Your task to perform on an android device: Add "razer kraken" to the cart on costco Image 0: 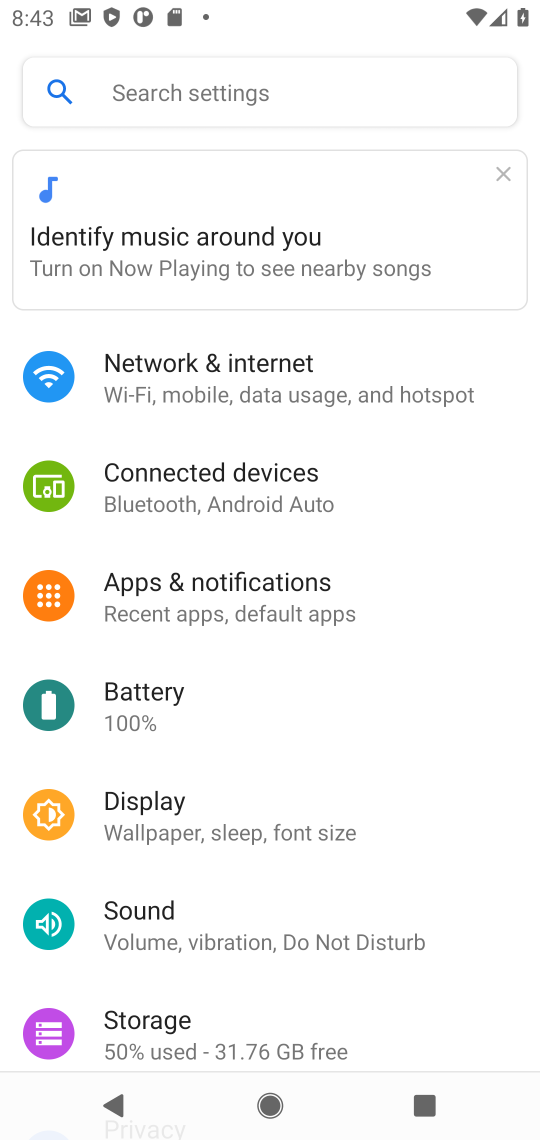
Step 0: press back button
Your task to perform on an android device: Add "razer kraken" to the cart on costco Image 1: 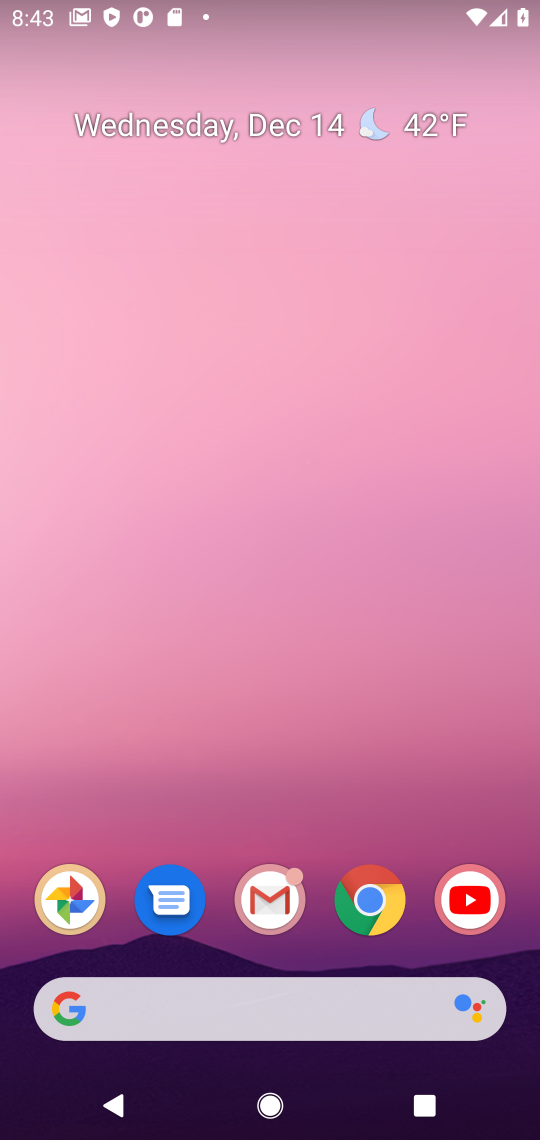
Step 1: click (389, 911)
Your task to perform on an android device: Add "razer kraken" to the cart on costco Image 2: 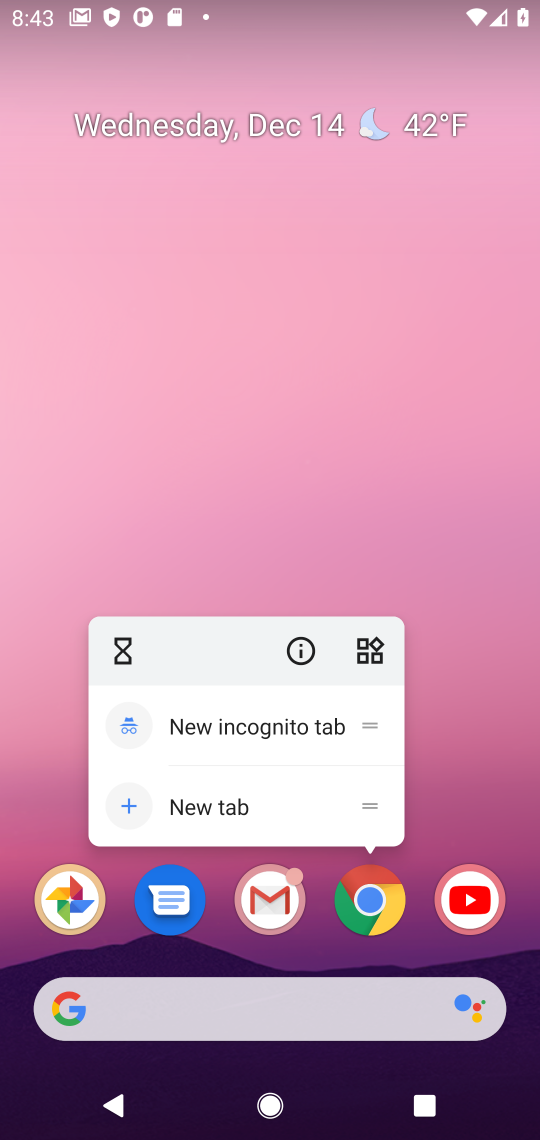
Step 2: click (388, 912)
Your task to perform on an android device: Add "razer kraken" to the cart on costco Image 3: 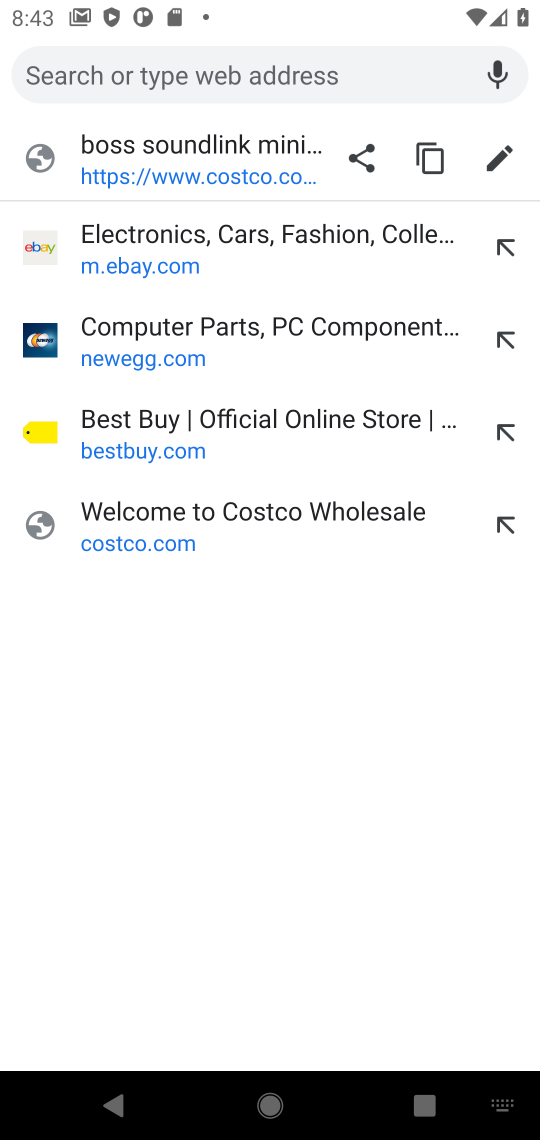
Step 3: click (140, 535)
Your task to perform on an android device: Add "razer kraken" to the cart on costco Image 4: 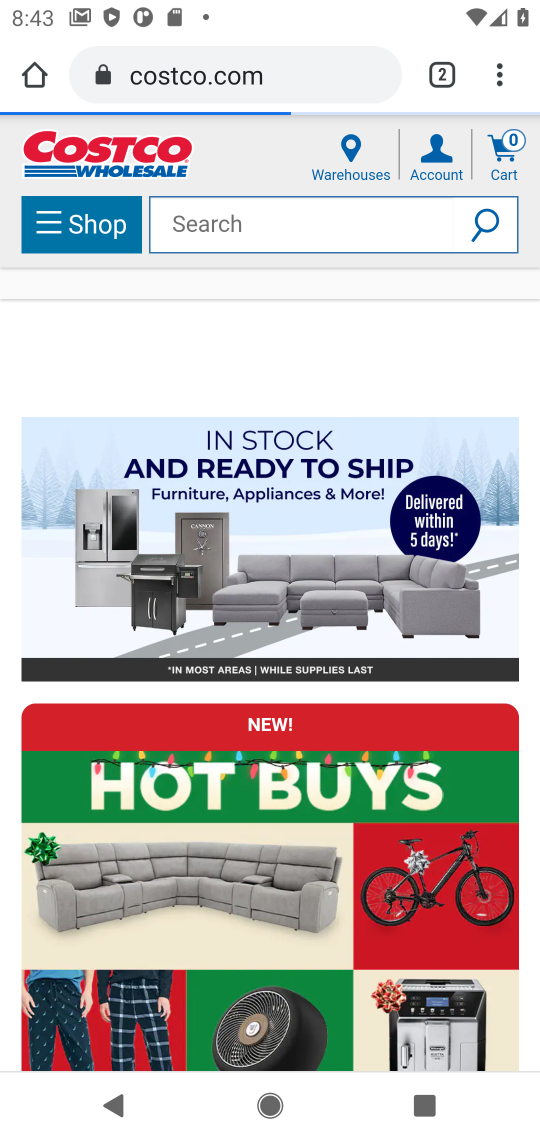
Step 4: click (341, 236)
Your task to perform on an android device: Add "razer kraken" to the cart on costco Image 5: 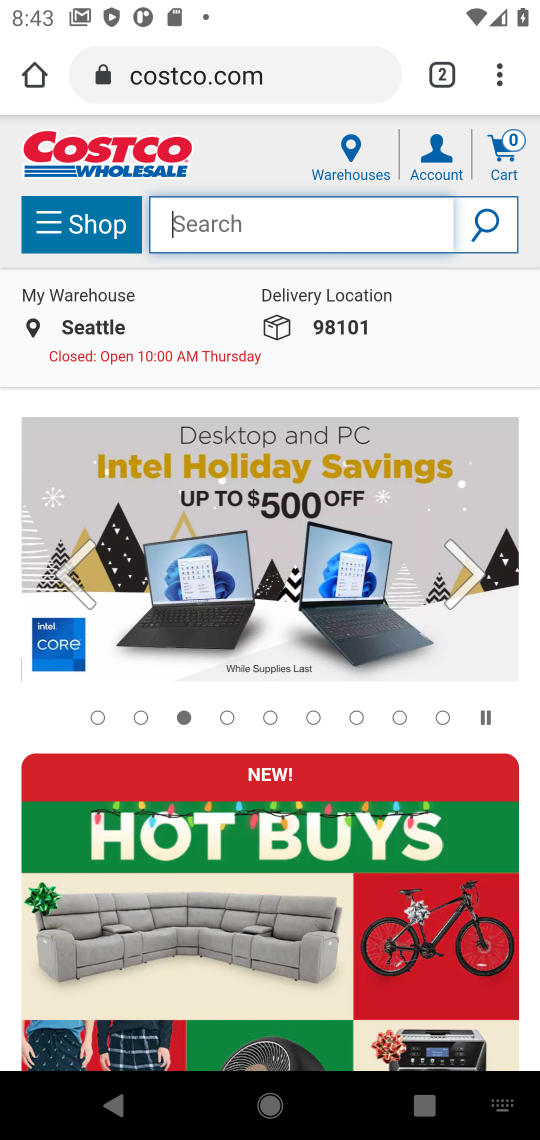
Step 5: type "razer kraken"
Your task to perform on an android device: Add "razer kraken" to the cart on costco Image 6: 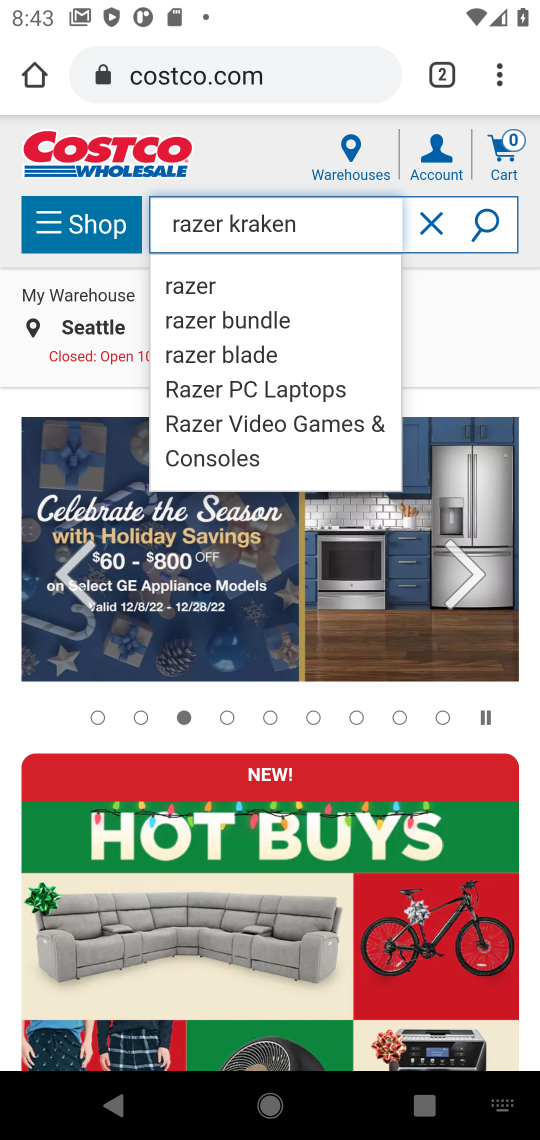
Step 6: click (499, 219)
Your task to perform on an android device: Add "razer kraken" to the cart on costco Image 7: 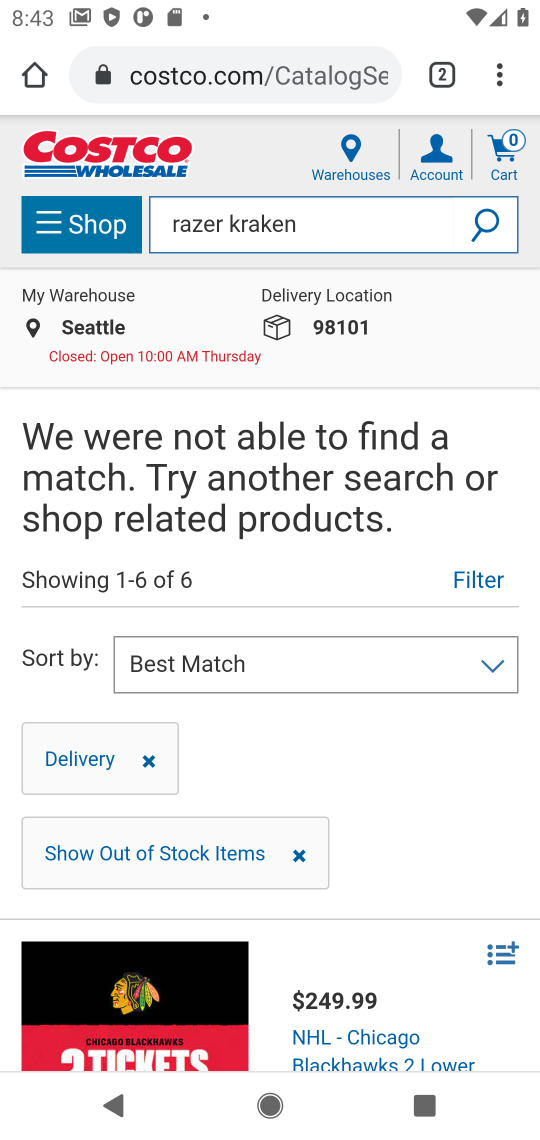
Step 7: task complete